Your task to perform on an android device: Search for vegetarian restaurants on Maps Image 0: 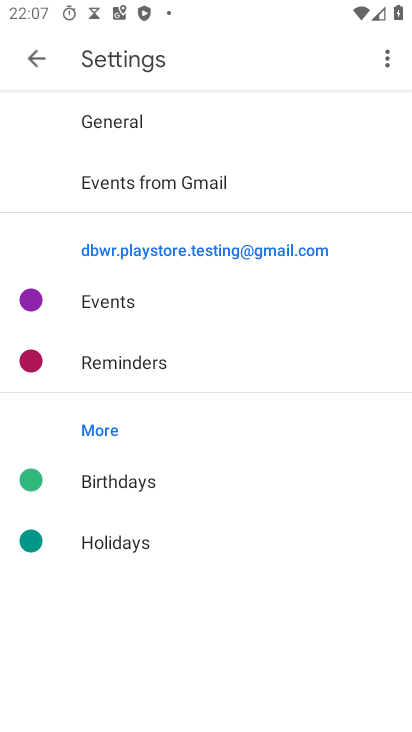
Step 0: press home button
Your task to perform on an android device: Search for vegetarian restaurants on Maps Image 1: 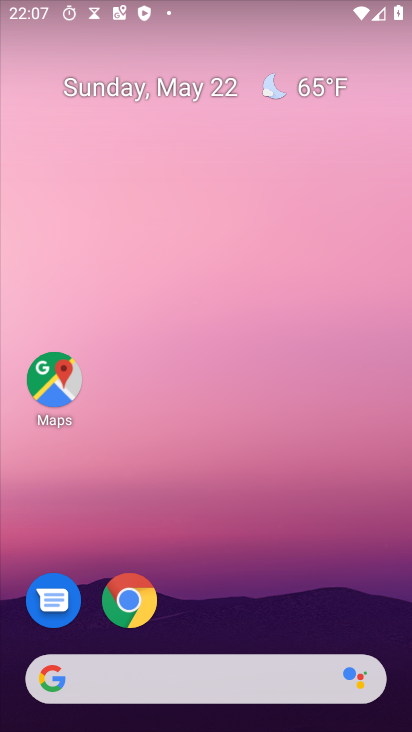
Step 1: click (56, 406)
Your task to perform on an android device: Search for vegetarian restaurants on Maps Image 2: 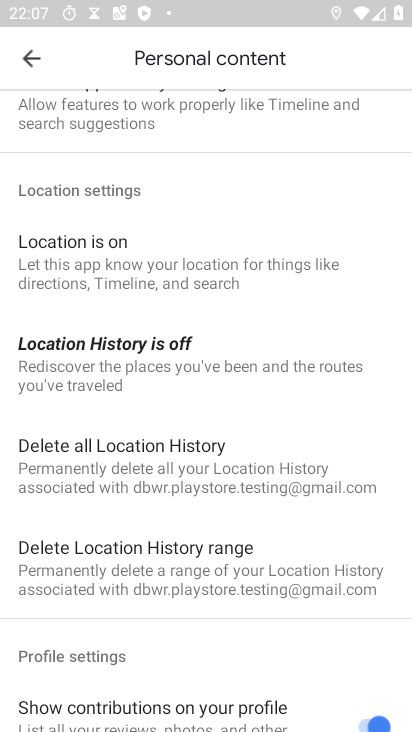
Step 2: press home button
Your task to perform on an android device: Search for vegetarian restaurants on Maps Image 3: 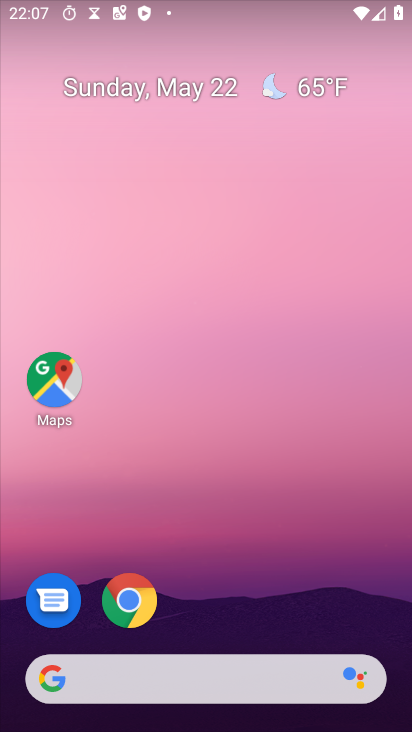
Step 3: click (154, 676)
Your task to perform on an android device: Search for vegetarian restaurants on Maps Image 4: 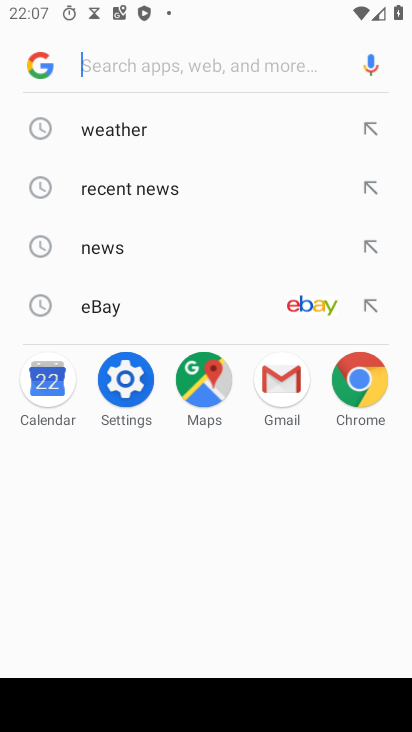
Step 4: press back button
Your task to perform on an android device: Search for vegetarian restaurants on Maps Image 5: 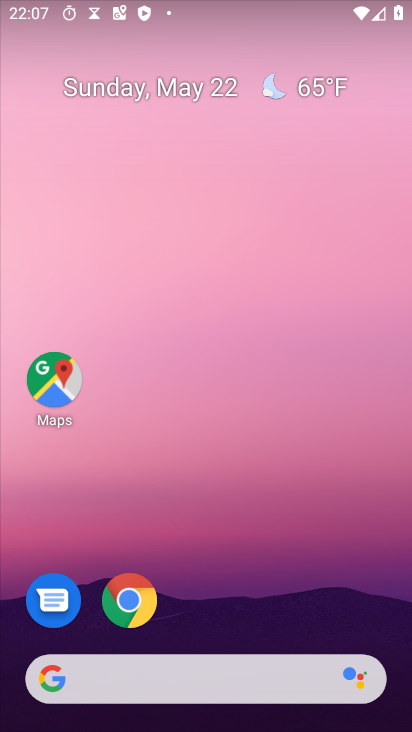
Step 5: click (91, 398)
Your task to perform on an android device: Search for vegetarian restaurants on Maps Image 6: 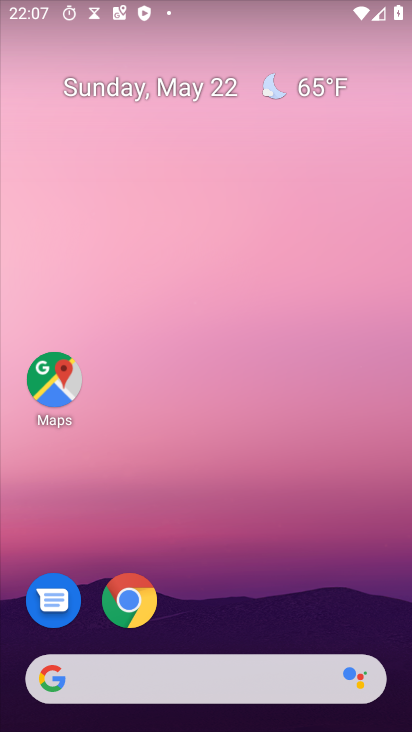
Step 6: click (59, 395)
Your task to perform on an android device: Search for vegetarian restaurants on Maps Image 7: 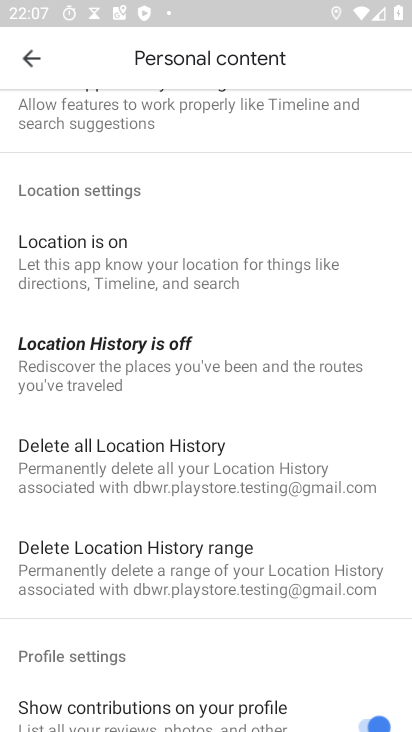
Step 7: click (40, 52)
Your task to perform on an android device: Search for vegetarian restaurants on Maps Image 8: 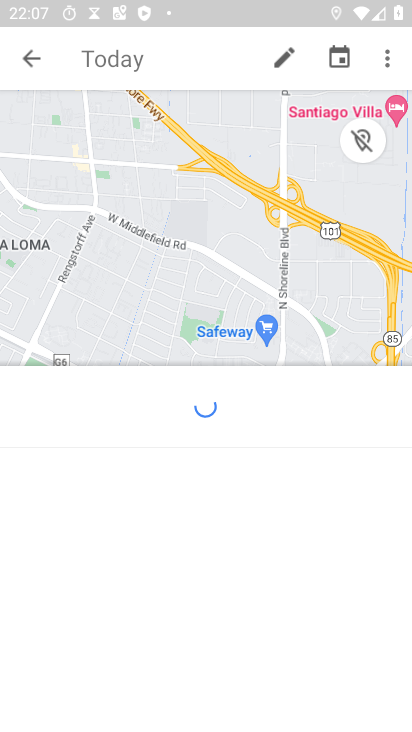
Step 8: click (34, 57)
Your task to perform on an android device: Search for vegetarian restaurants on Maps Image 9: 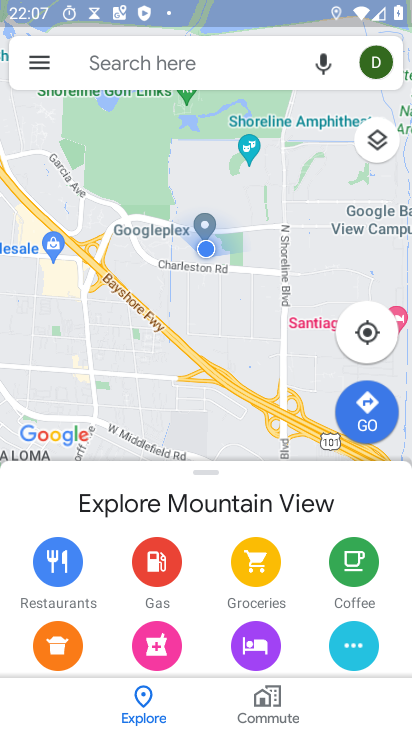
Step 9: click (163, 73)
Your task to perform on an android device: Search for vegetarian restaurants on Maps Image 10: 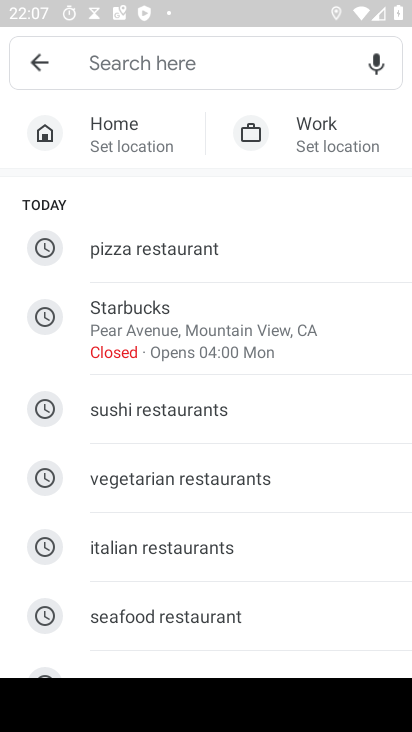
Step 10: click (225, 482)
Your task to perform on an android device: Search for vegetarian restaurants on Maps Image 11: 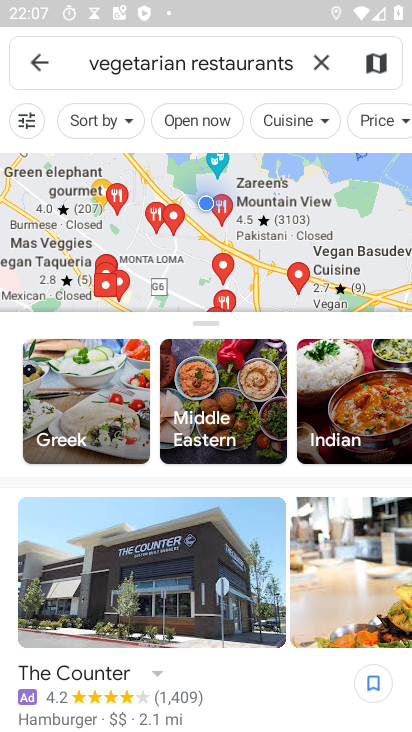
Step 11: task complete